Your task to perform on an android device: see sites visited before in the chrome app Image 0: 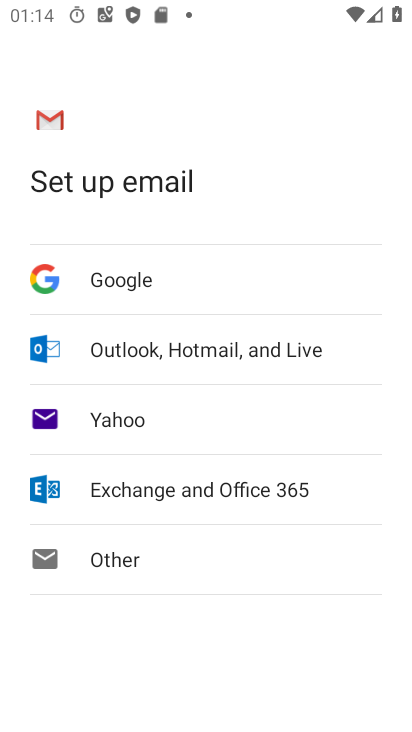
Step 0: press home button
Your task to perform on an android device: see sites visited before in the chrome app Image 1: 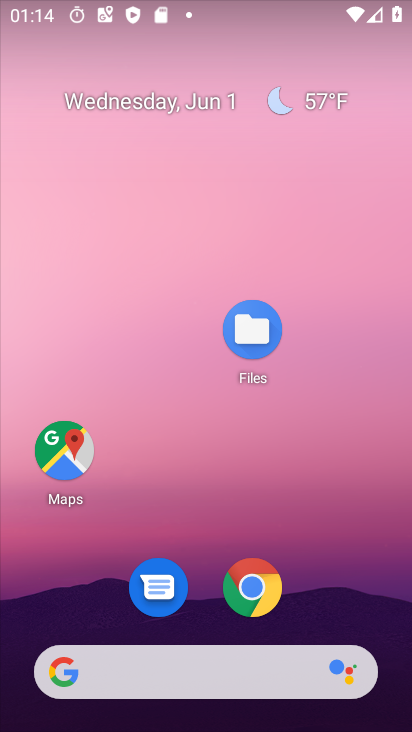
Step 1: click (257, 571)
Your task to perform on an android device: see sites visited before in the chrome app Image 2: 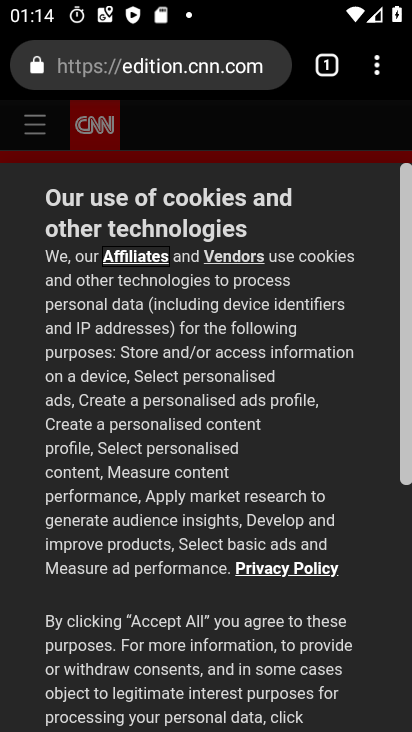
Step 2: task complete